Your task to perform on an android device: change the clock display to analog Image 0: 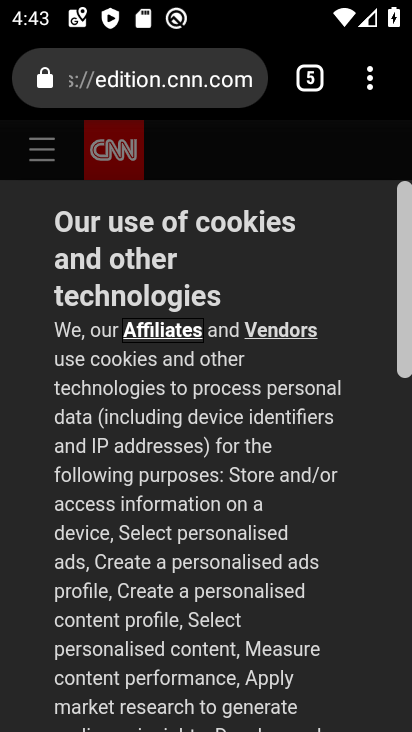
Step 0: press back button
Your task to perform on an android device: change the clock display to analog Image 1: 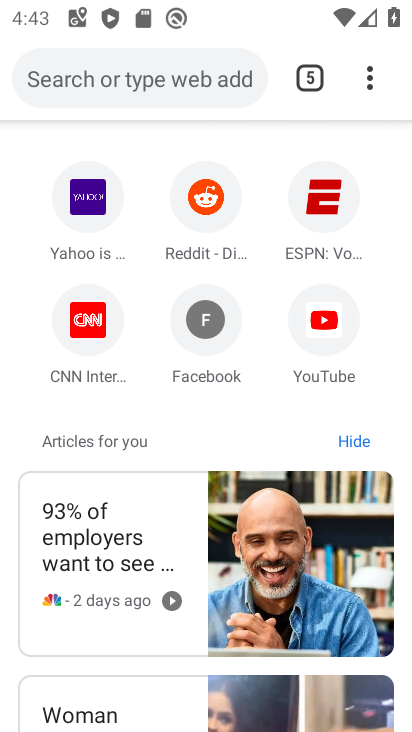
Step 1: press back button
Your task to perform on an android device: change the clock display to analog Image 2: 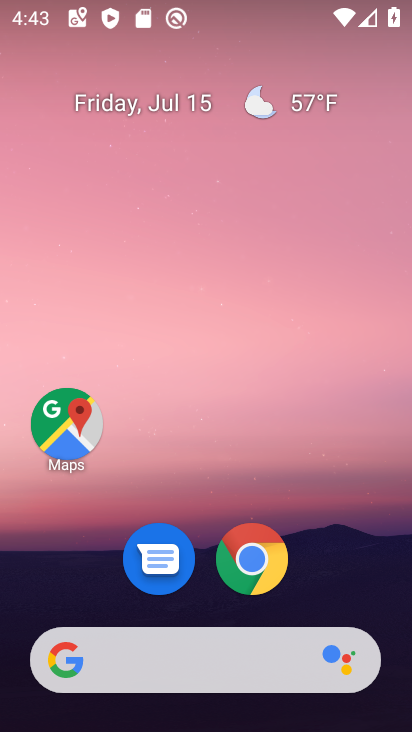
Step 2: drag from (61, 588) to (214, 59)
Your task to perform on an android device: change the clock display to analog Image 3: 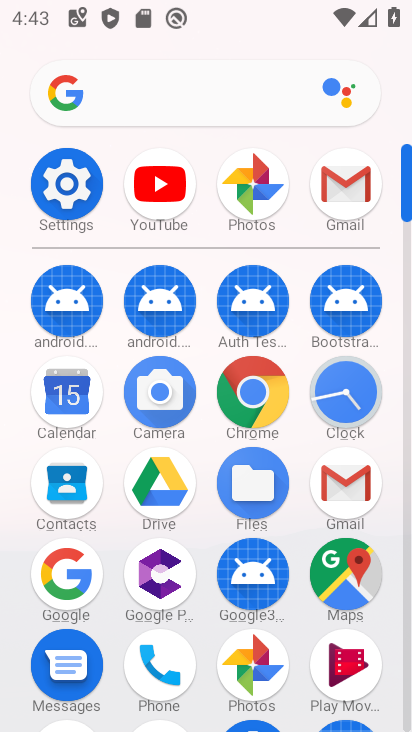
Step 3: click (335, 382)
Your task to perform on an android device: change the clock display to analog Image 4: 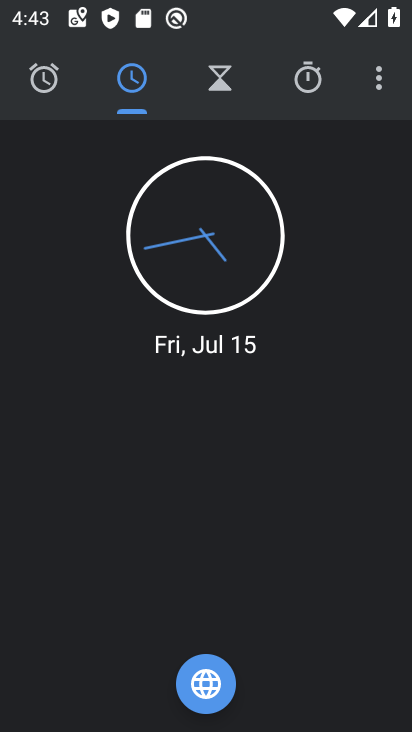
Step 4: click (377, 71)
Your task to perform on an android device: change the clock display to analog Image 5: 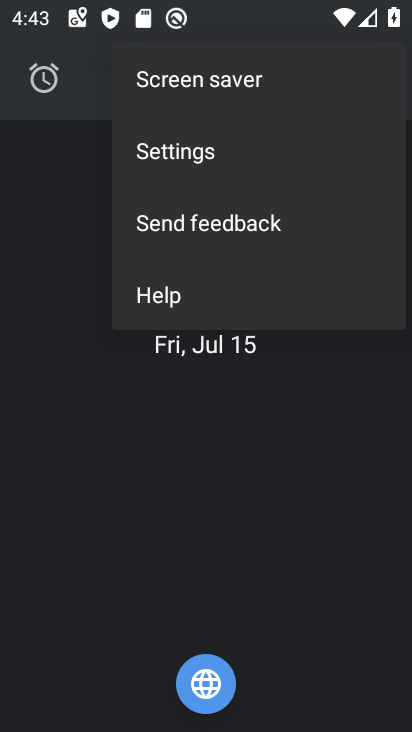
Step 5: click (208, 151)
Your task to perform on an android device: change the clock display to analog Image 6: 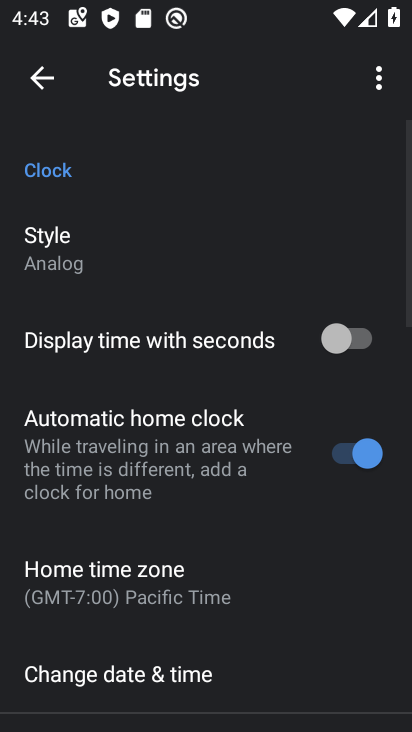
Step 6: click (94, 250)
Your task to perform on an android device: change the clock display to analog Image 7: 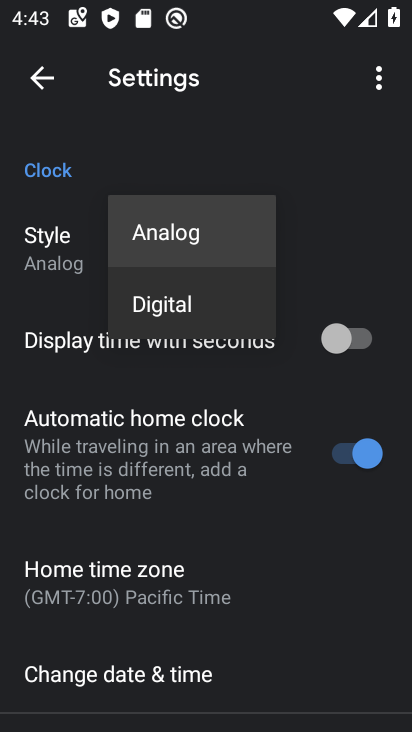
Step 7: click (185, 236)
Your task to perform on an android device: change the clock display to analog Image 8: 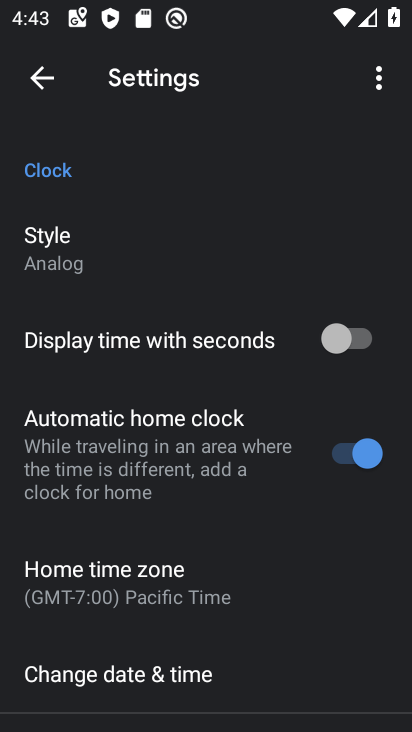
Step 8: task complete